Your task to perform on an android device: turn pop-ups off in chrome Image 0: 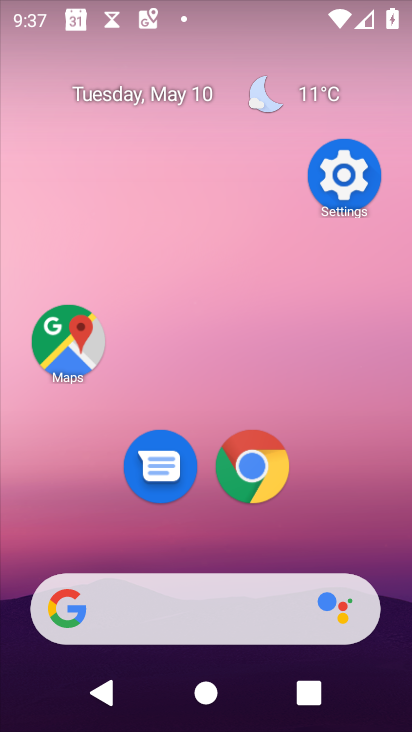
Step 0: click (256, 466)
Your task to perform on an android device: turn pop-ups off in chrome Image 1: 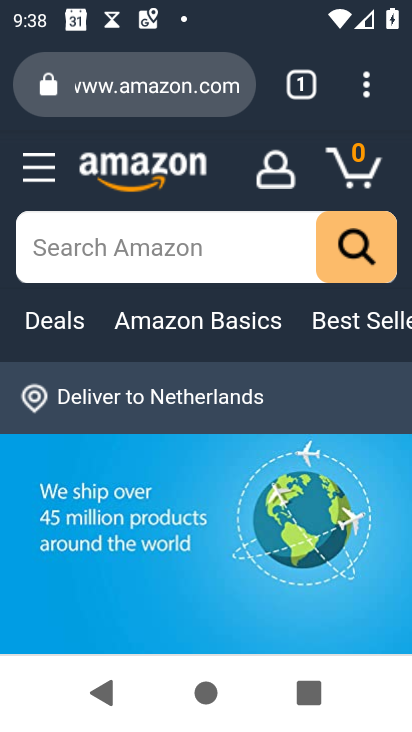
Step 1: click (380, 90)
Your task to perform on an android device: turn pop-ups off in chrome Image 2: 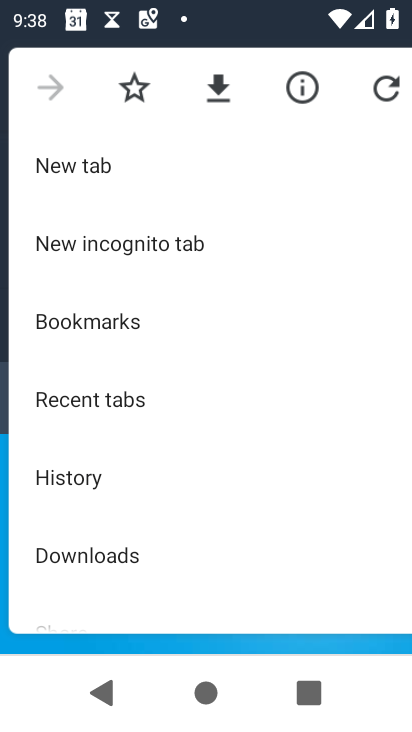
Step 2: drag from (184, 588) to (185, 297)
Your task to perform on an android device: turn pop-ups off in chrome Image 3: 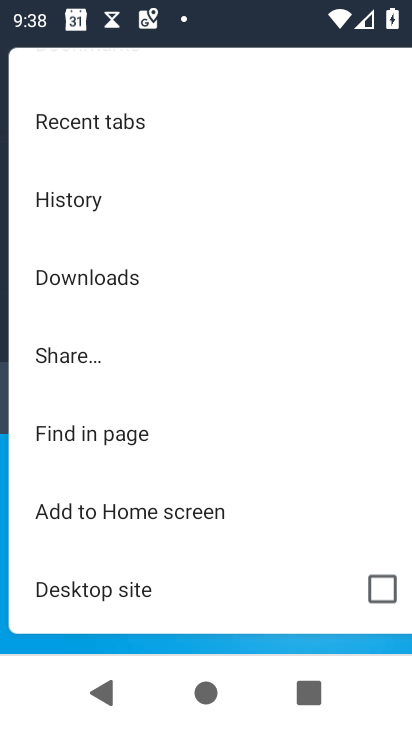
Step 3: drag from (121, 552) to (114, 351)
Your task to perform on an android device: turn pop-ups off in chrome Image 4: 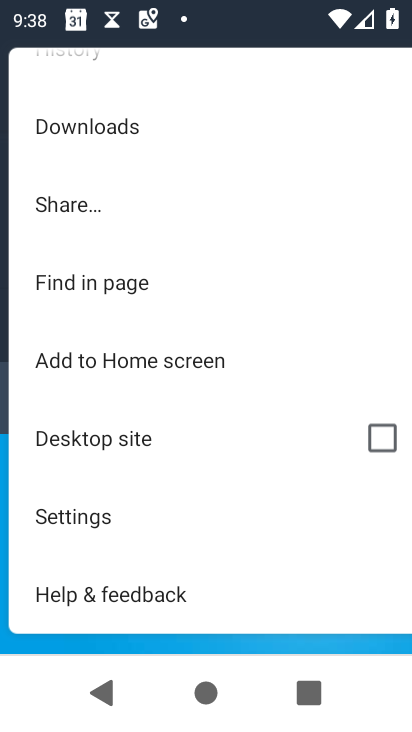
Step 4: click (114, 529)
Your task to perform on an android device: turn pop-ups off in chrome Image 5: 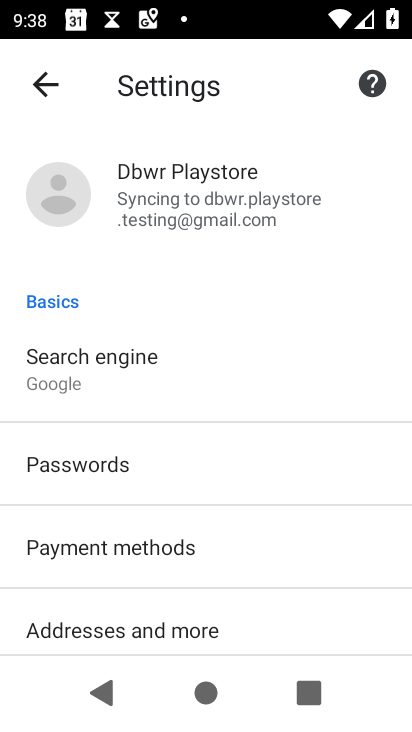
Step 5: drag from (165, 591) to (186, 257)
Your task to perform on an android device: turn pop-ups off in chrome Image 6: 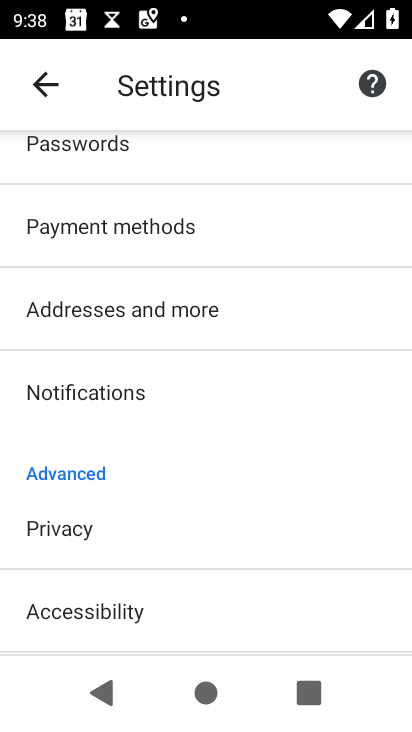
Step 6: drag from (147, 548) to (172, 255)
Your task to perform on an android device: turn pop-ups off in chrome Image 7: 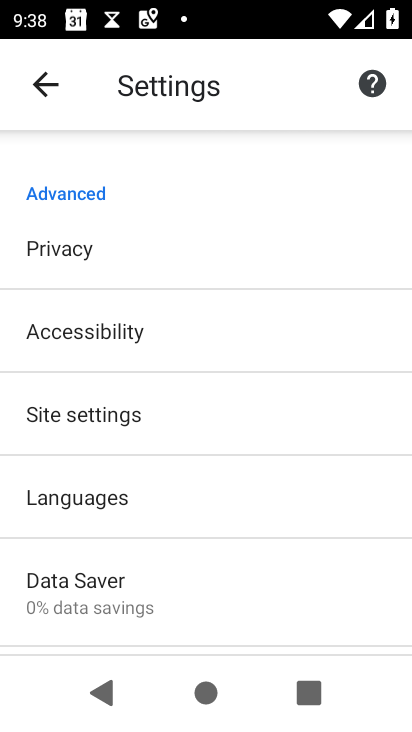
Step 7: drag from (131, 547) to (150, 261)
Your task to perform on an android device: turn pop-ups off in chrome Image 8: 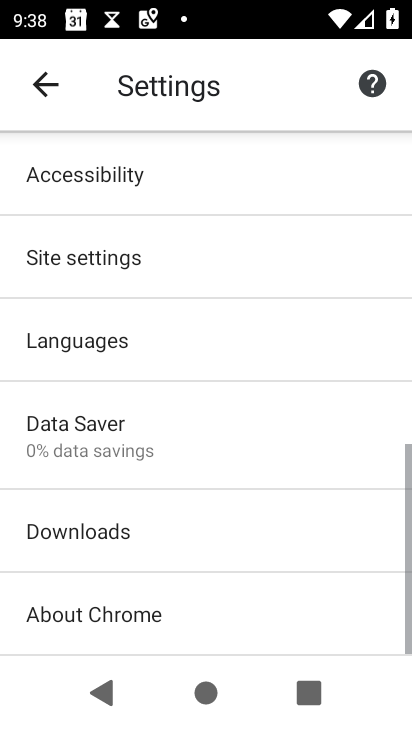
Step 8: click (150, 238)
Your task to perform on an android device: turn pop-ups off in chrome Image 9: 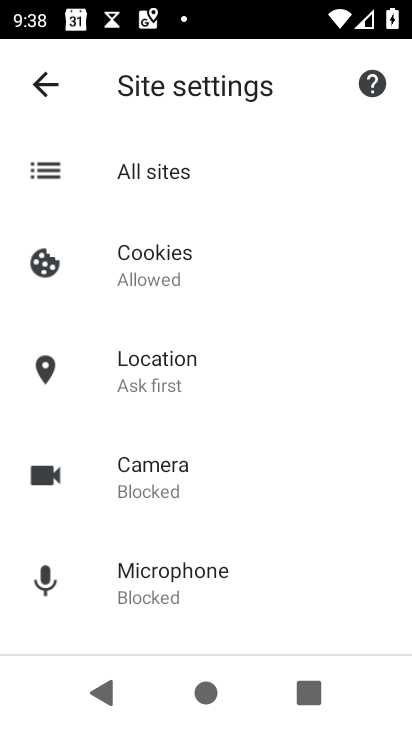
Step 9: drag from (172, 509) to (178, 332)
Your task to perform on an android device: turn pop-ups off in chrome Image 10: 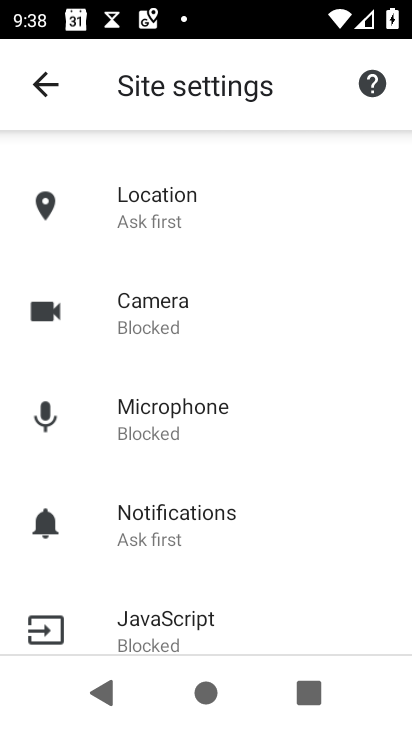
Step 10: drag from (205, 567) to (214, 361)
Your task to perform on an android device: turn pop-ups off in chrome Image 11: 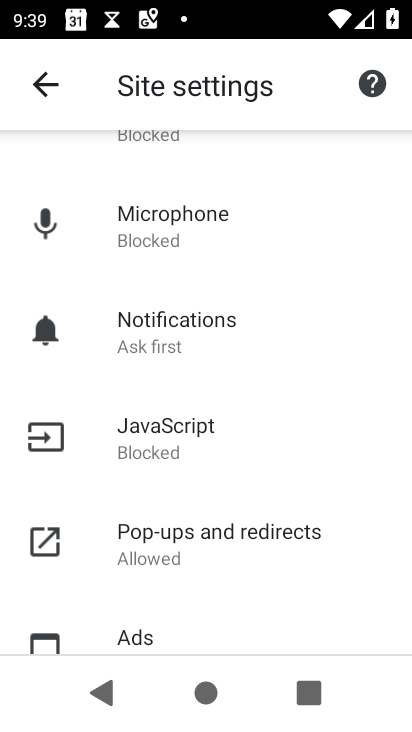
Step 11: click (210, 551)
Your task to perform on an android device: turn pop-ups off in chrome Image 12: 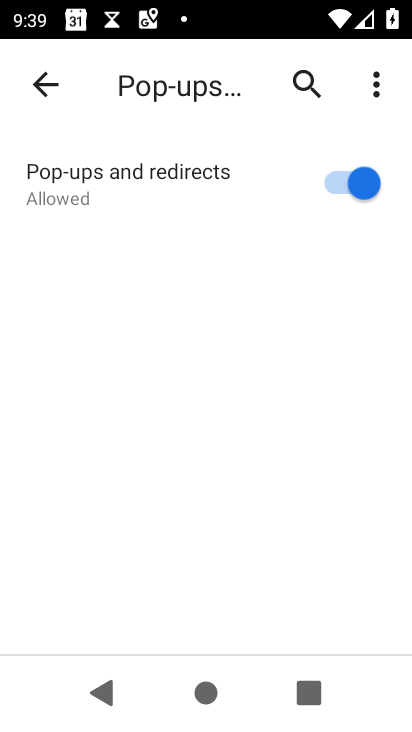
Step 12: click (337, 174)
Your task to perform on an android device: turn pop-ups off in chrome Image 13: 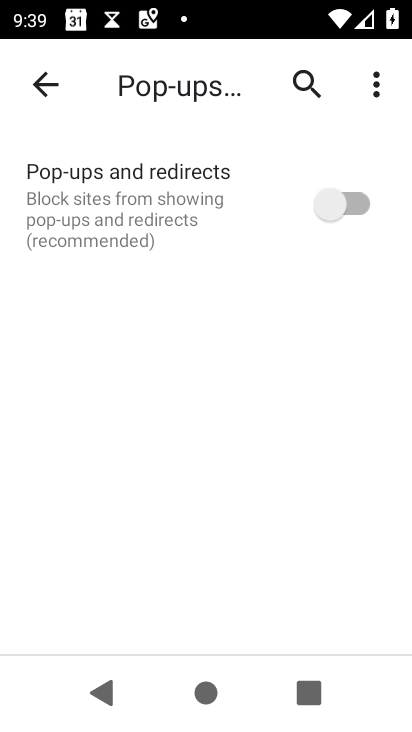
Step 13: task complete